Your task to perform on an android device: turn pop-ups off in chrome Image 0: 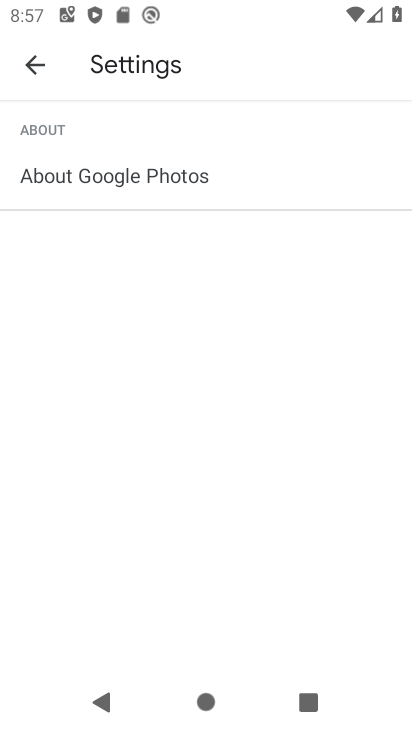
Step 0: press back button
Your task to perform on an android device: turn pop-ups off in chrome Image 1: 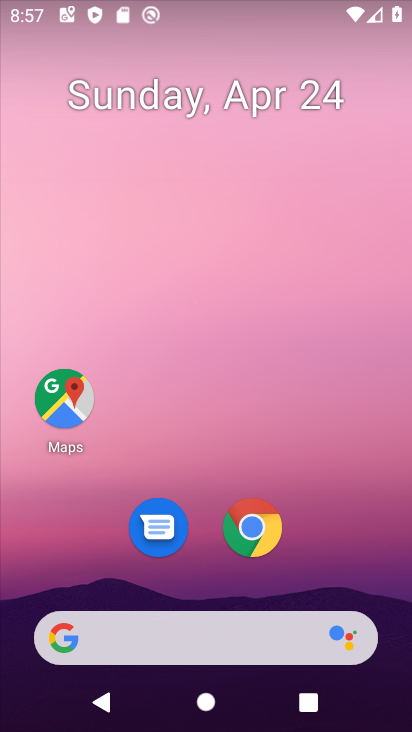
Step 1: click (245, 528)
Your task to perform on an android device: turn pop-ups off in chrome Image 2: 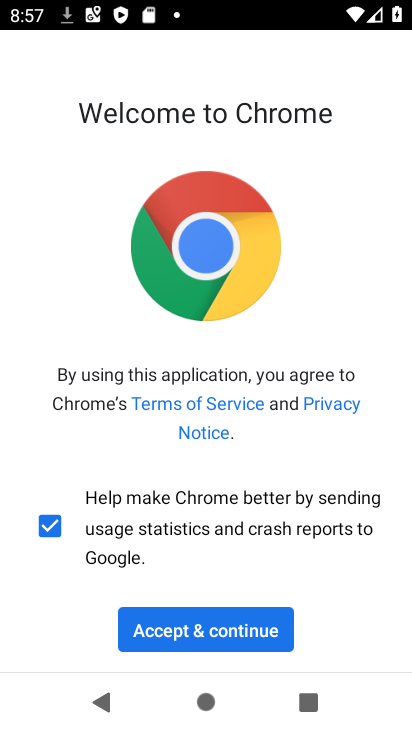
Step 2: click (193, 631)
Your task to perform on an android device: turn pop-ups off in chrome Image 3: 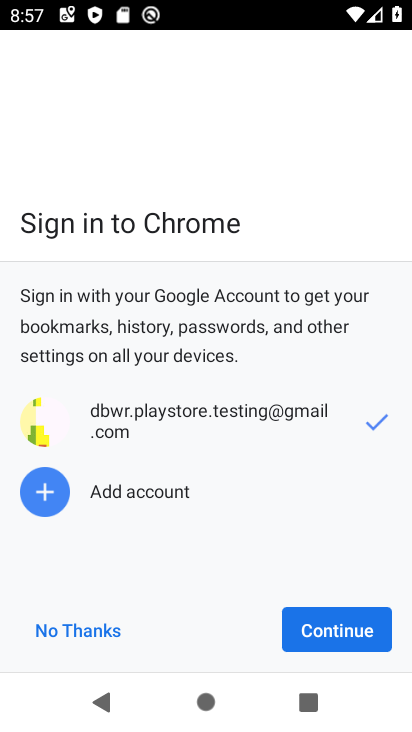
Step 3: click (330, 642)
Your task to perform on an android device: turn pop-ups off in chrome Image 4: 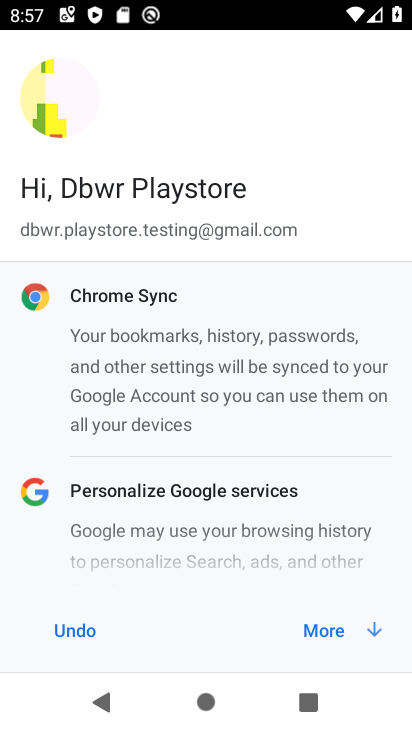
Step 4: click (331, 616)
Your task to perform on an android device: turn pop-ups off in chrome Image 5: 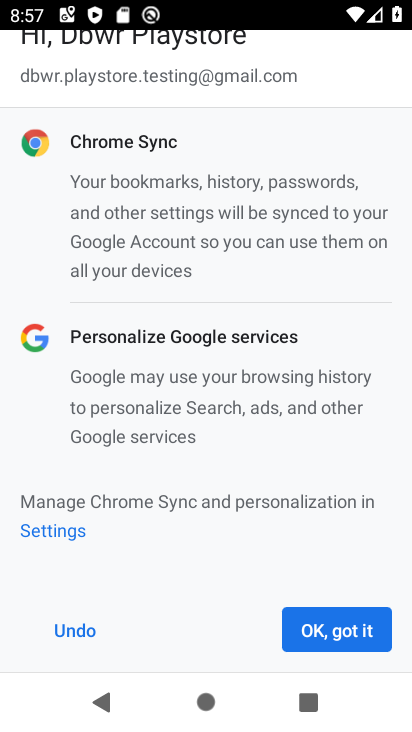
Step 5: click (311, 629)
Your task to perform on an android device: turn pop-ups off in chrome Image 6: 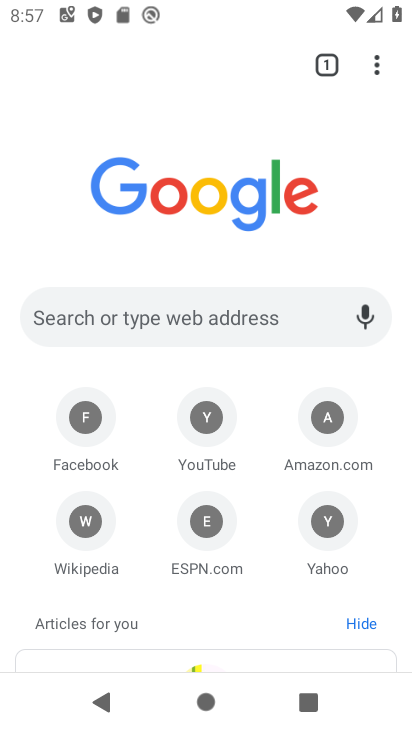
Step 6: drag from (375, 73) to (194, 537)
Your task to perform on an android device: turn pop-ups off in chrome Image 7: 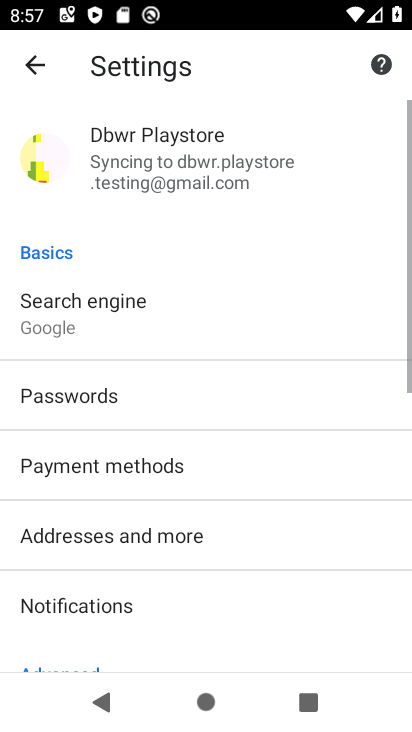
Step 7: drag from (141, 588) to (264, 82)
Your task to perform on an android device: turn pop-ups off in chrome Image 8: 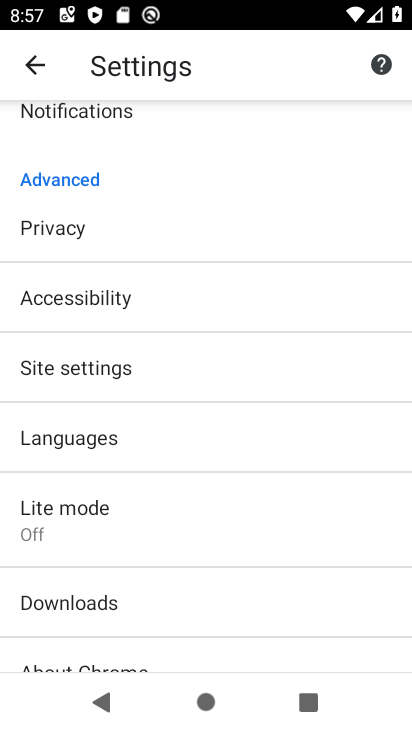
Step 8: click (88, 366)
Your task to perform on an android device: turn pop-ups off in chrome Image 9: 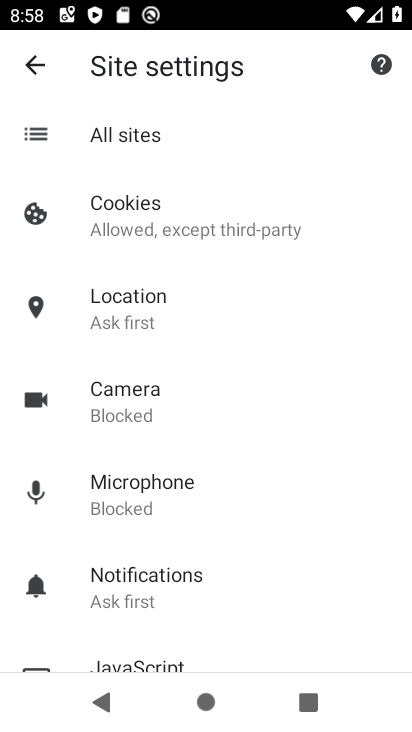
Step 9: drag from (139, 608) to (255, 147)
Your task to perform on an android device: turn pop-ups off in chrome Image 10: 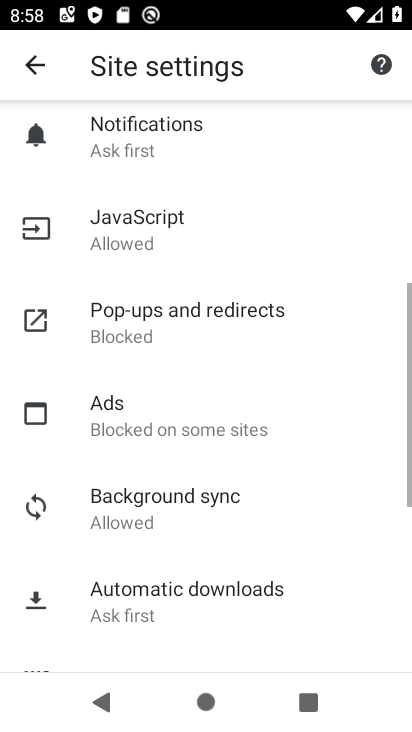
Step 10: click (148, 317)
Your task to perform on an android device: turn pop-ups off in chrome Image 11: 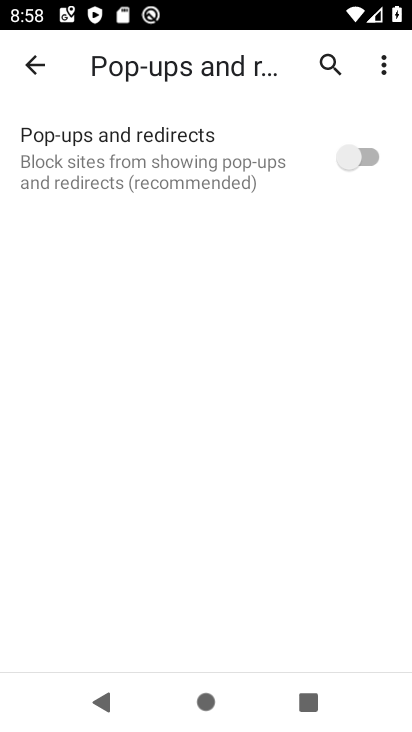
Step 11: task complete